Your task to perform on an android device: toggle notifications settings in the gmail app Image 0: 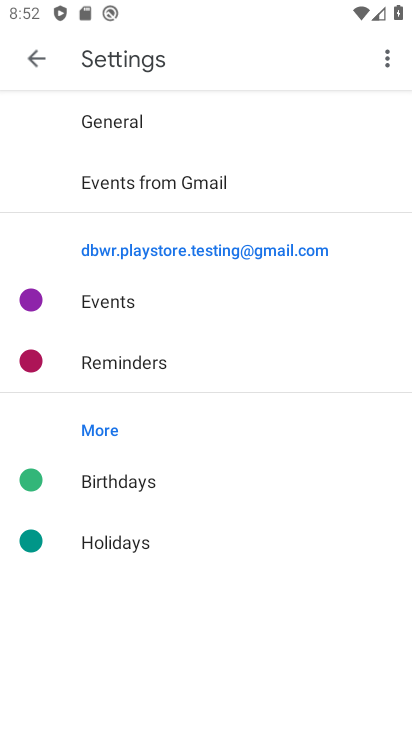
Step 0: press home button
Your task to perform on an android device: toggle notifications settings in the gmail app Image 1: 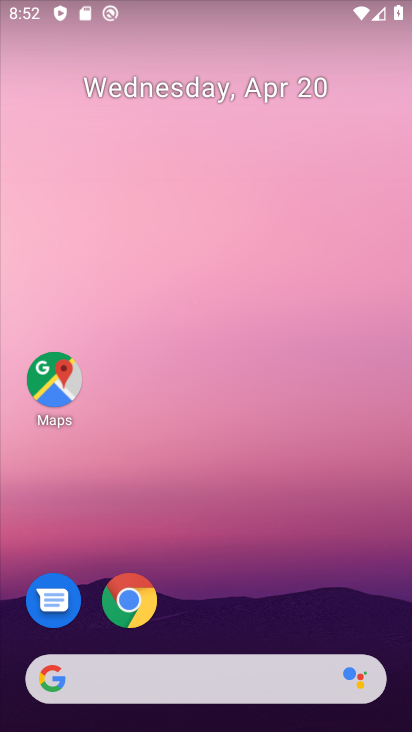
Step 1: drag from (208, 657) to (87, 29)
Your task to perform on an android device: toggle notifications settings in the gmail app Image 2: 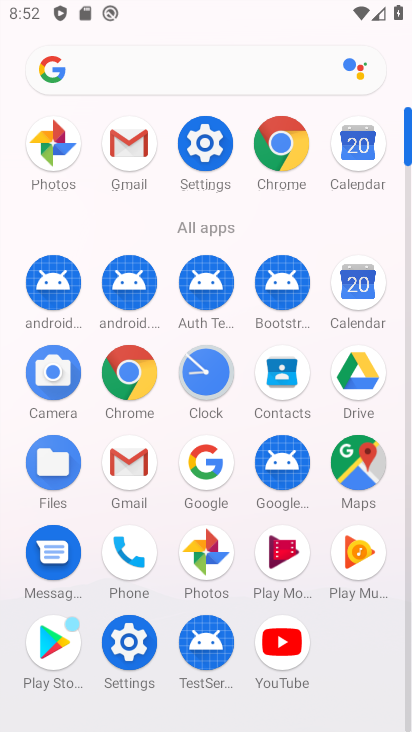
Step 2: click (127, 456)
Your task to perform on an android device: toggle notifications settings in the gmail app Image 3: 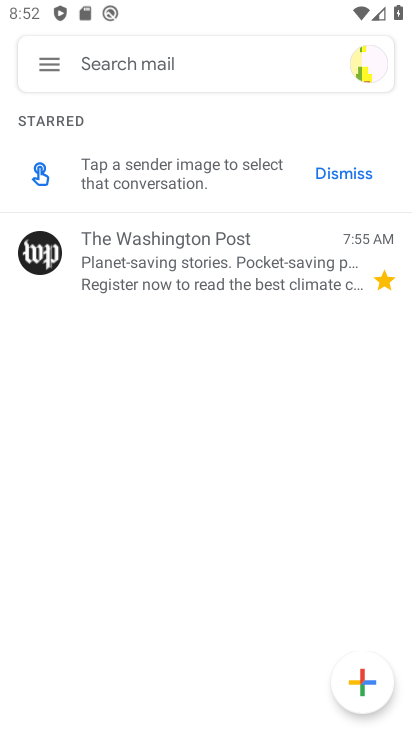
Step 3: click (44, 58)
Your task to perform on an android device: toggle notifications settings in the gmail app Image 4: 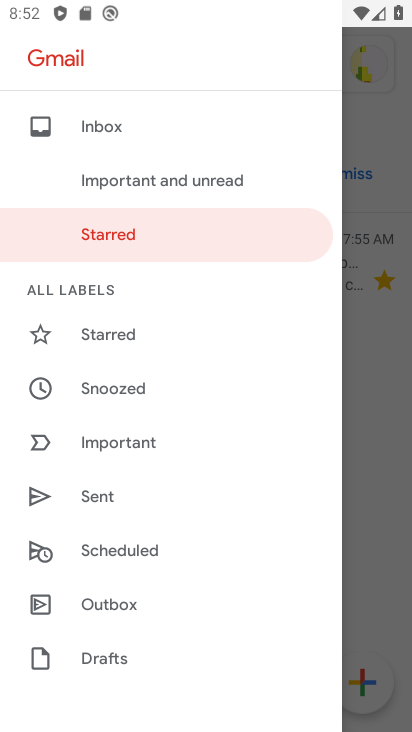
Step 4: drag from (168, 601) to (162, 220)
Your task to perform on an android device: toggle notifications settings in the gmail app Image 5: 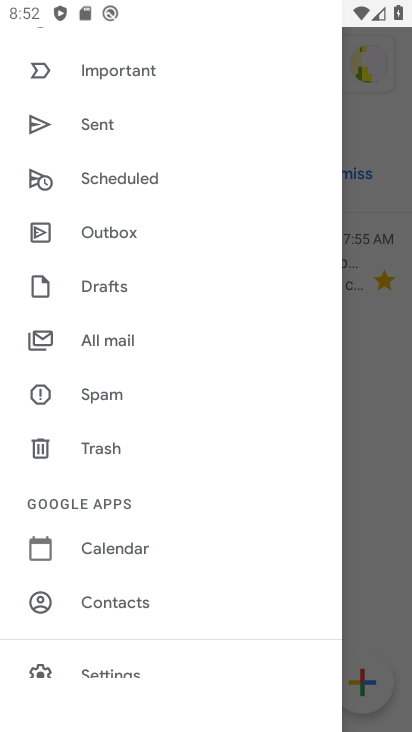
Step 5: drag from (143, 623) to (124, 260)
Your task to perform on an android device: toggle notifications settings in the gmail app Image 6: 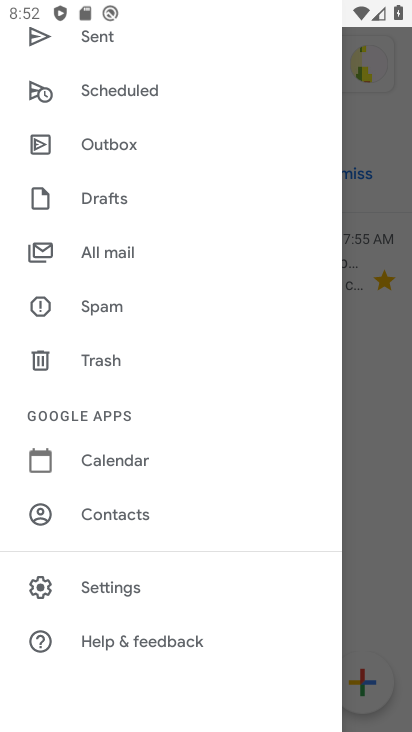
Step 6: click (118, 586)
Your task to perform on an android device: toggle notifications settings in the gmail app Image 7: 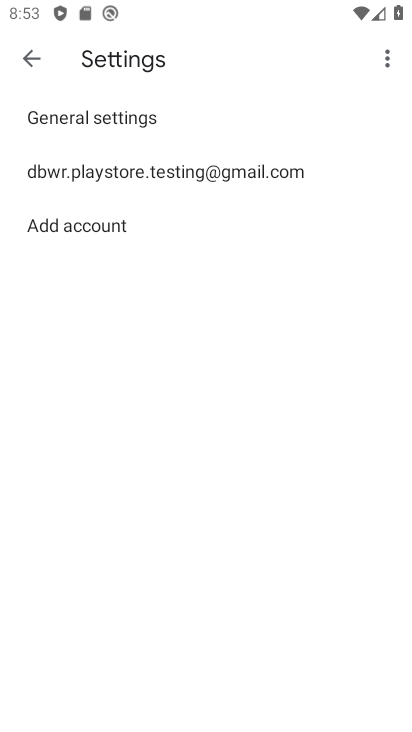
Step 7: click (126, 175)
Your task to perform on an android device: toggle notifications settings in the gmail app Image 8: 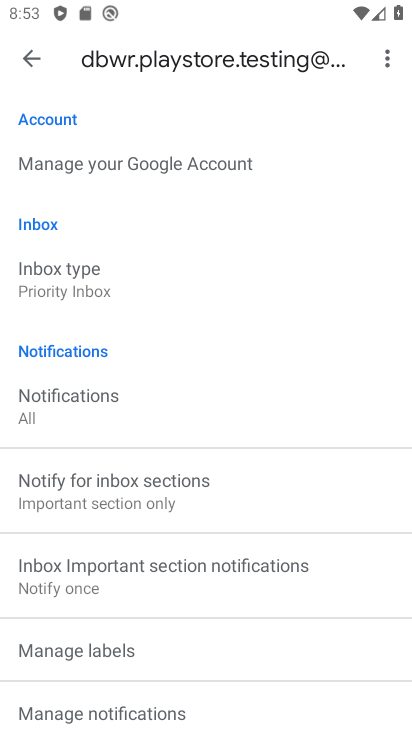
Step 8: drag from (174, 621) to (148, 242)
Your task to perform on an android device: toggle notifications settings in the gmail app Image 9: 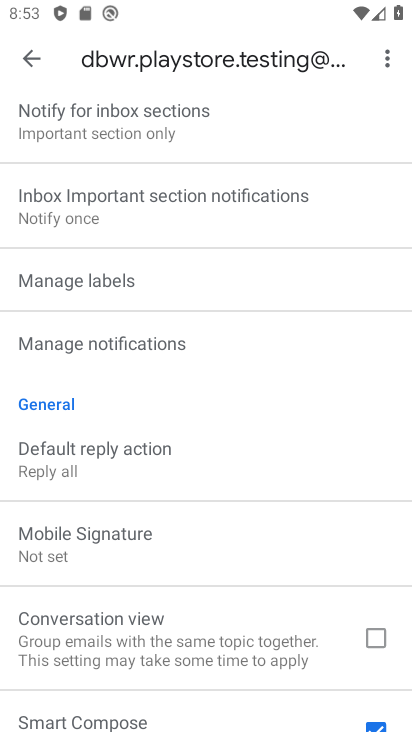
Step 9: click (133, 336)
Your task to perform on an android device: toggle notifications settings in the gmail app Image 10: 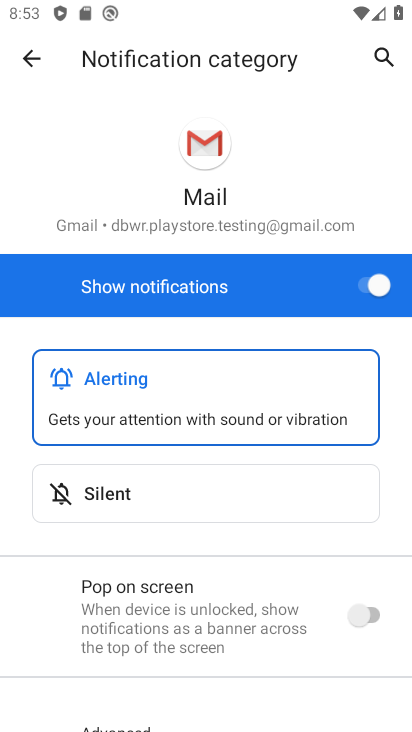
Step 10: click (376, 292)
Your task to perform on an android device: toggle notifications settings in the gmail app Image 11: 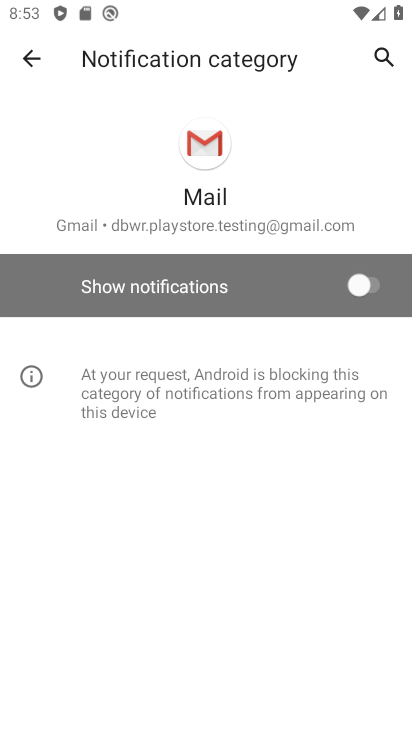
Step 11: task complete